Your task to perform on an android device: What is the recent news? Image 0: 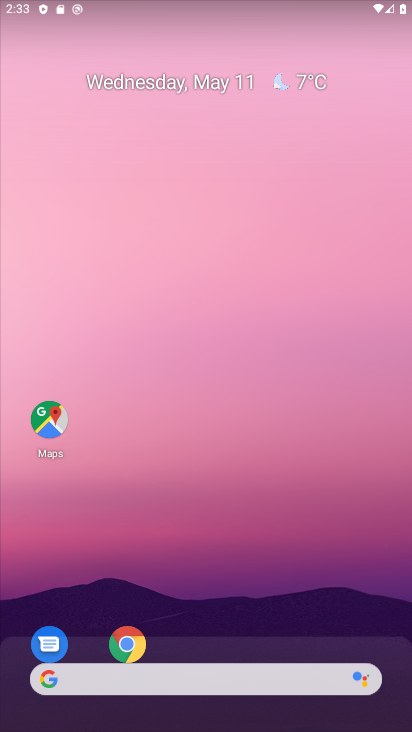
Step 0: click (250, 692)
Your task to perform on an android device: What is the recent news? Image 1: 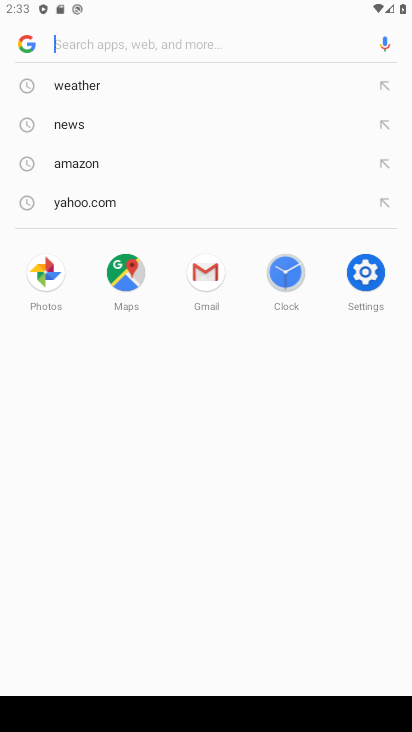
Step 1: type "recent news"
Your task to perform on an android device: What is the recent news? Image 2: 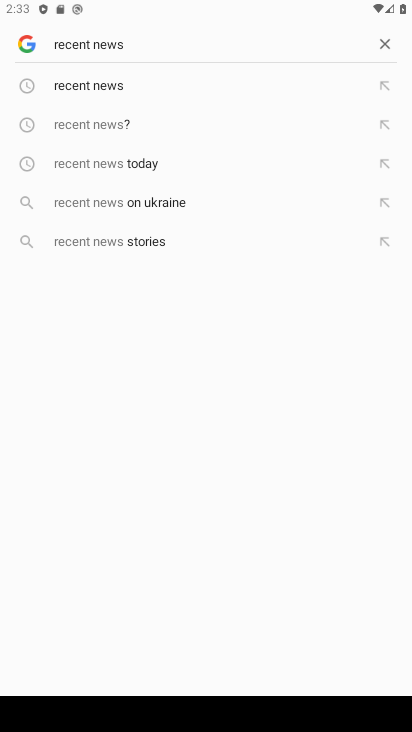
Step 2: click (120, 84)
Your task to perform on an android device: What is the recent news? Image 3: 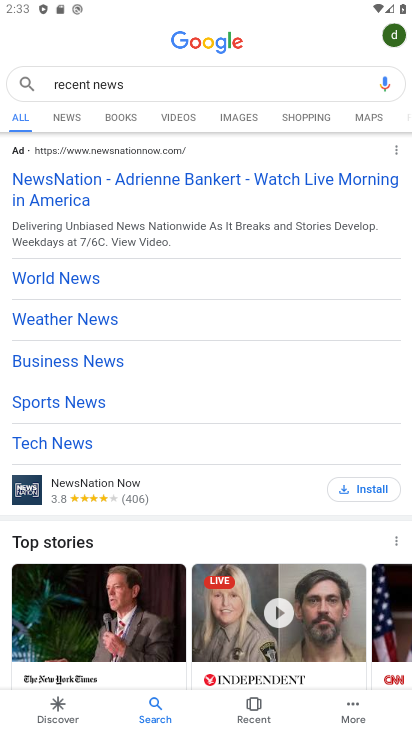
Step 3: task complete